Your task to perform on an android device: turn smart compose on in the gmail app Image 0: 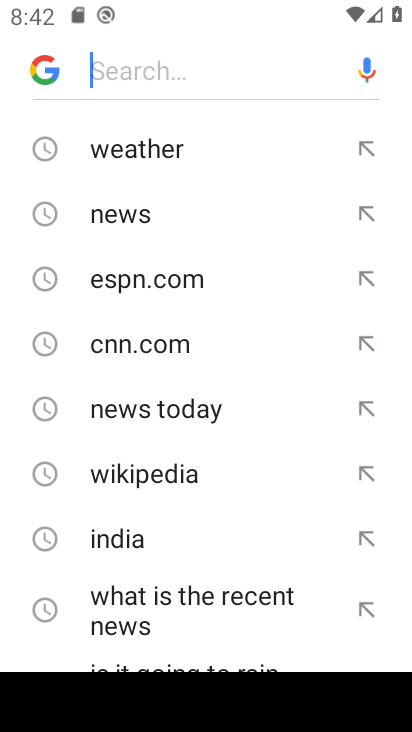
Step 0: press home button
Your task to perform on an android device: turn smart compose on in the gmail app Image 1: 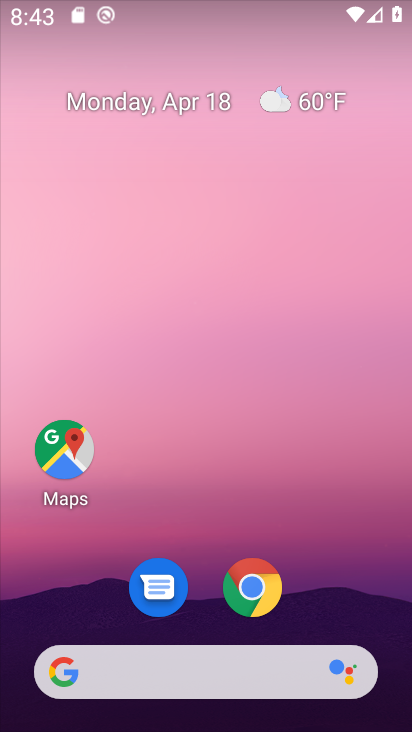
Step 1: drag from (354, 566) to (314, 57)
Your task to perform on an android device: turn smart compose on in the gmail app Image 2: 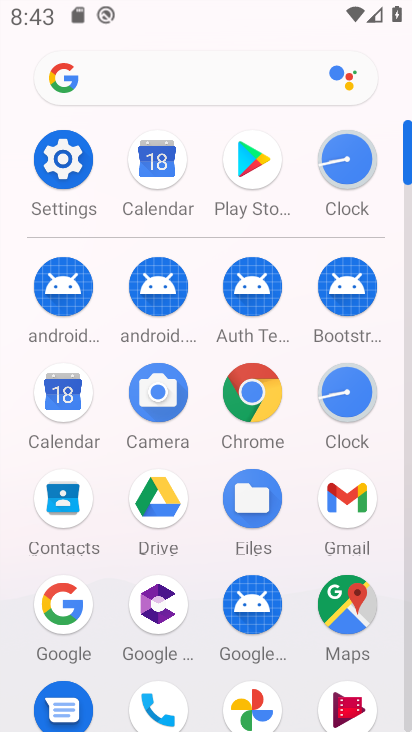
Step 2: click (352, 507)
Your task to perform on an android device: turn smart compose on in the gmail app Image 3: 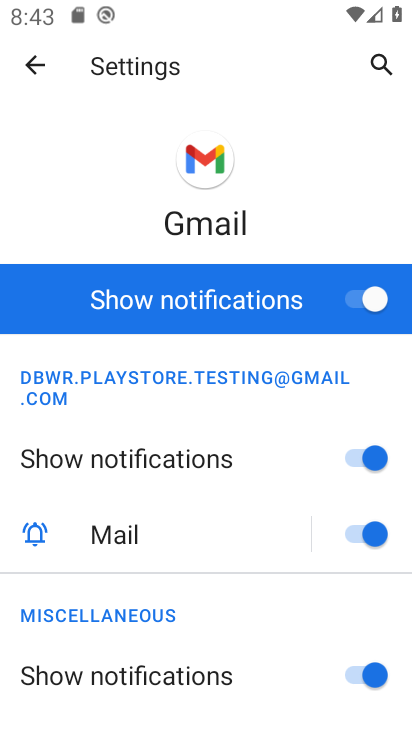
Step 3: drag from (267, 615) to (266, 423)
Your task to perform on an android device: turn smart compose on in the gmail app Image 4: 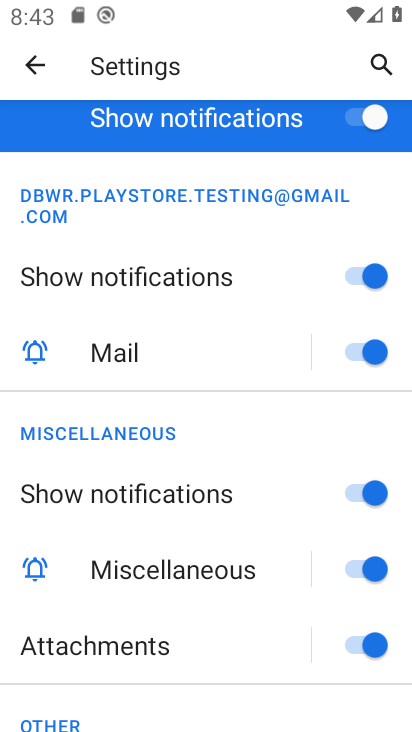
Step 4: click (38, 54)
Your task to perform on an android device: turn smart compose on in the gmail app Image 5: 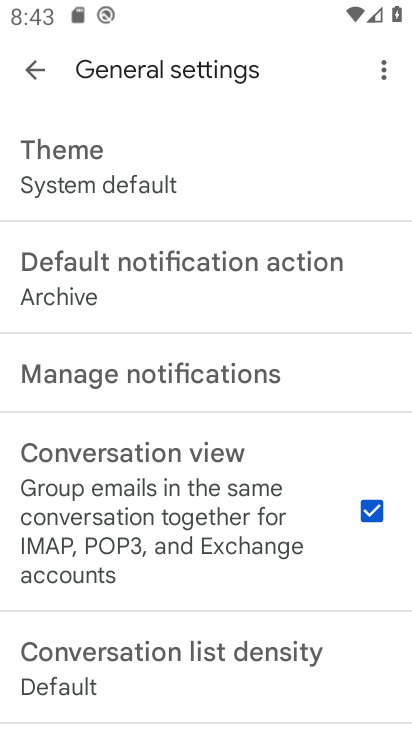
Step 5: click (40, 70)
Your task to perform on an android device: turn smart compose on in the gmail app Image 6: 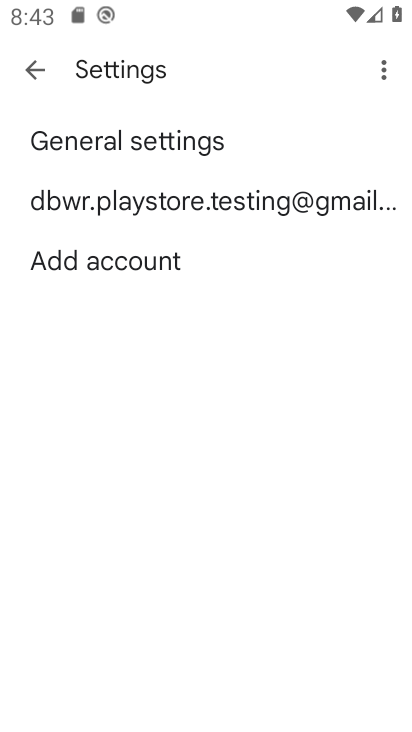
Step 6: click (66, 219)
Your task to perform on an android device: turn smart compose on in the gmail app Image 7: 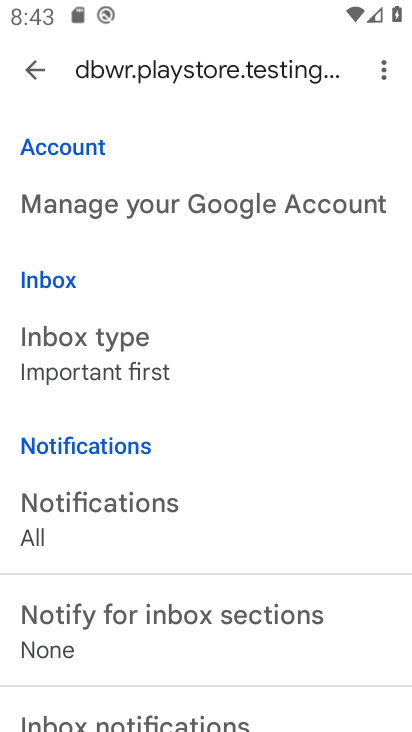
Step 7: task complete